Your task to perform on an android device: toggle improve location accuracy Image 0: 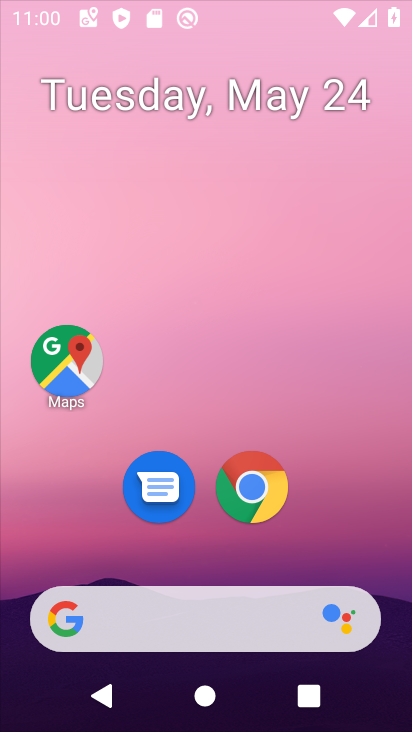
Step 0: click (245, 107)
Your task to perform on an android device: toggle improve location accuracy Image 1: 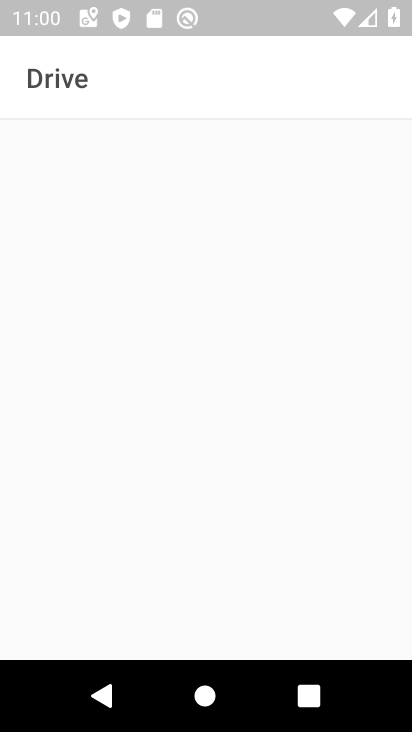
Step 1: press home button
Your task to perform on an android device: toggle improve location accuracy Image 2: 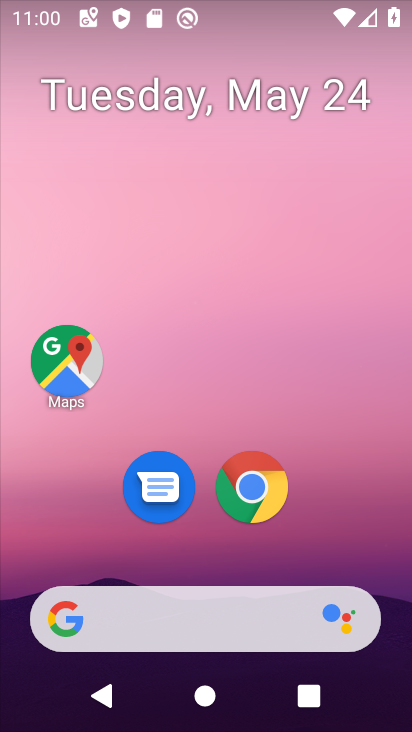
Step 2: drag from (223, 320) to (10, 277)
Your task to perform on an android device: toggle improve location accuracy Image 3: 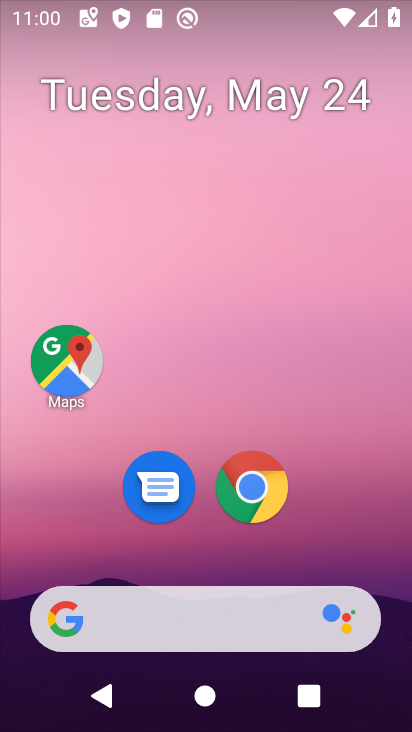
Step 3: drag from (187, 533) to (235, 124)
Your task to perform on an android device: toggle improve location accuracy Image 4: 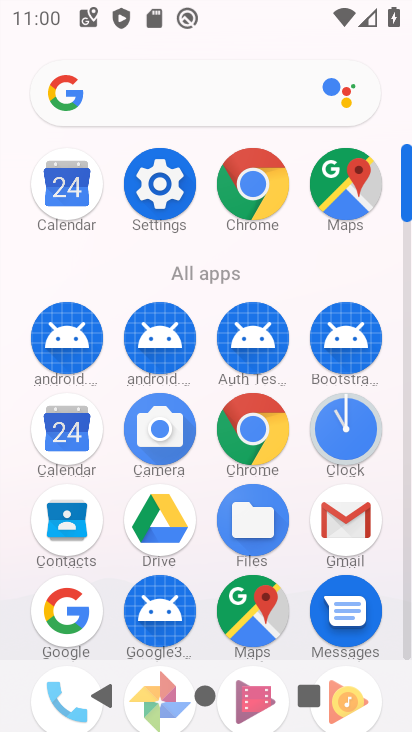
Step 4: click (150, 180)
Your task to perform on an android device: toggle improve location accuracy Image 5: 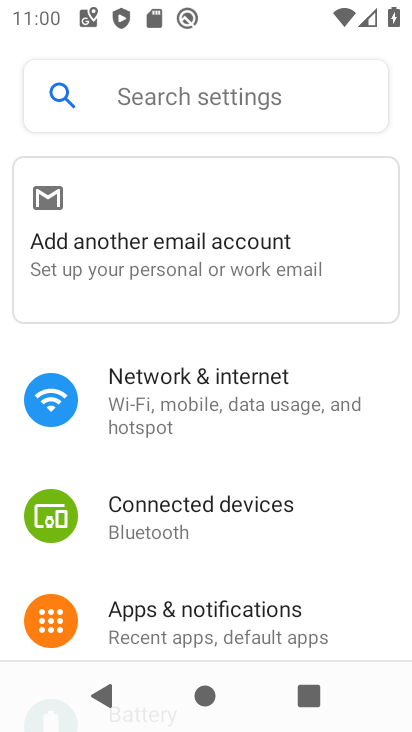
Step 5: drag from (159, 619) to (249, 153)
Your task to perform on an android device: toggle improve location accuracy Image 6: 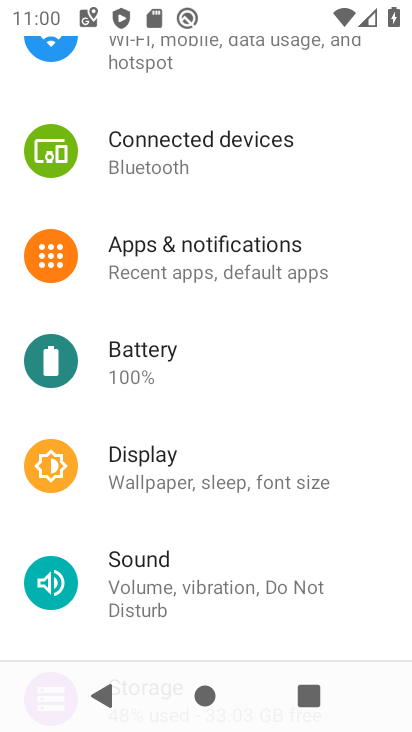
Step 6: drag from (159, 578) to (230, 187)
Your task to perform on an android device: toggle improve location accuracy Image 7: 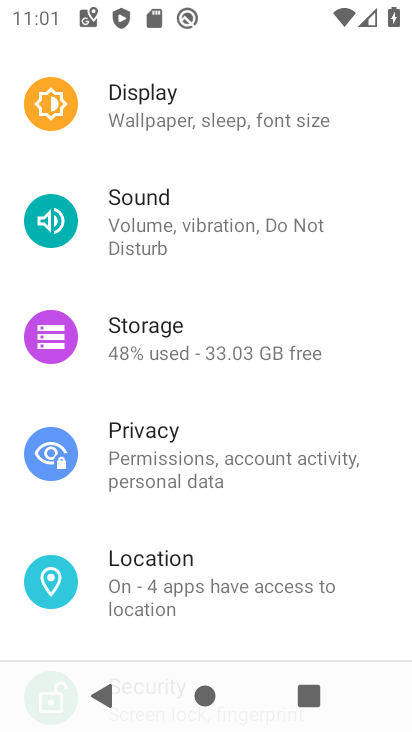
Step 7: click (162, 584)
Your task to perform on an android device: toggle improve location accuracy Image 8: 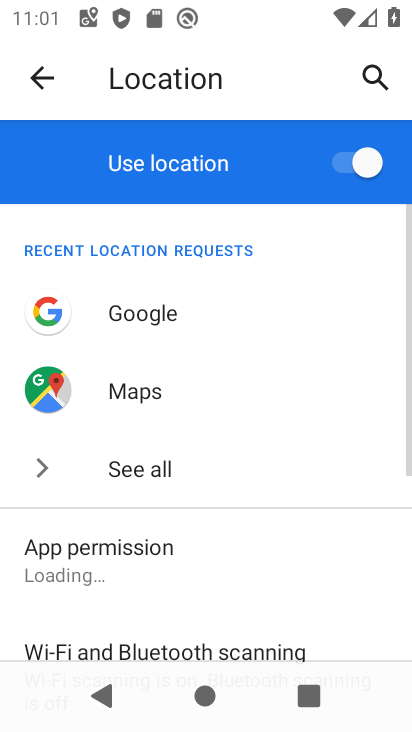
Step 8: drag from (146, 605) to (237, 231)
Your task to perform on an android device: toggle improve location accuracy Image 9: 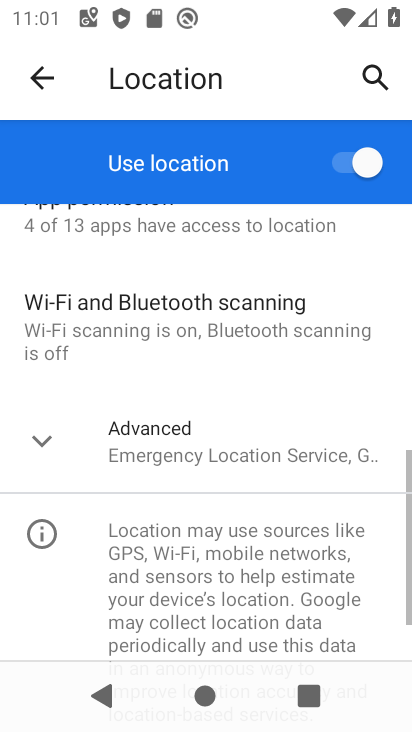
Step 9: click (181, 443)
Your task to perform on an android device: toggle improve location accuracy Image 10: 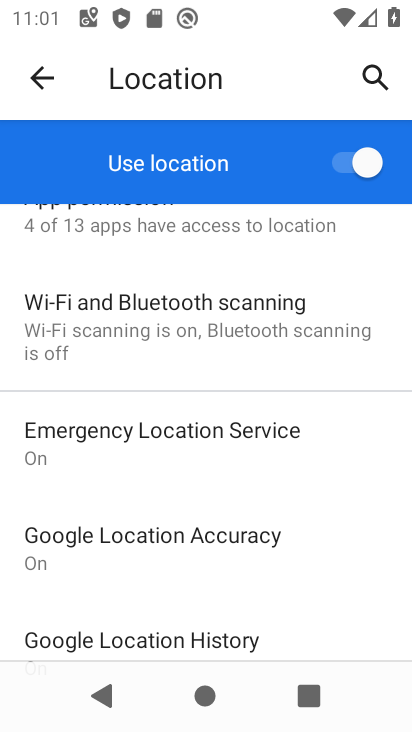
Step 10: click (165, 534)
Your task to perform on an android device: toggle improve location accuracy Image 11: 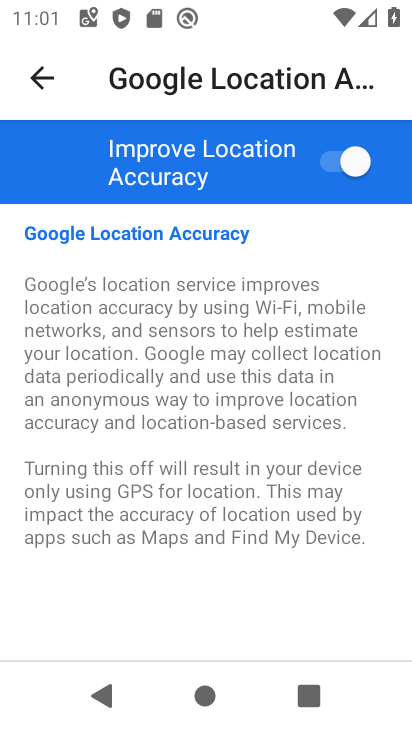
Step 11: click (344, 156)
Your task to perform on an android device: toggle improve location accuracy Image 12: 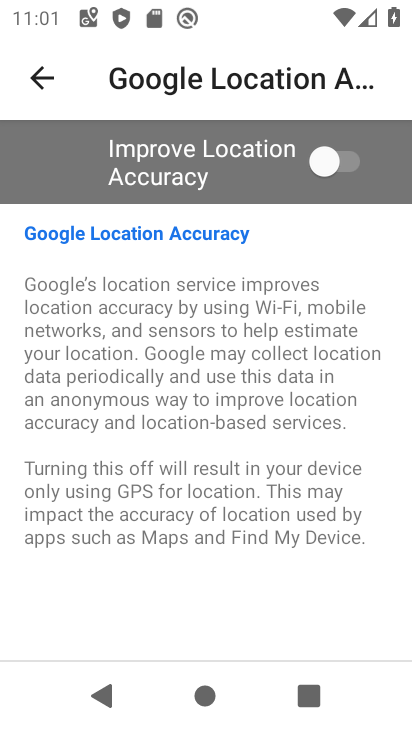
Step 12: task complete